Your task to perform on an android device: Open internet settings Image 0: 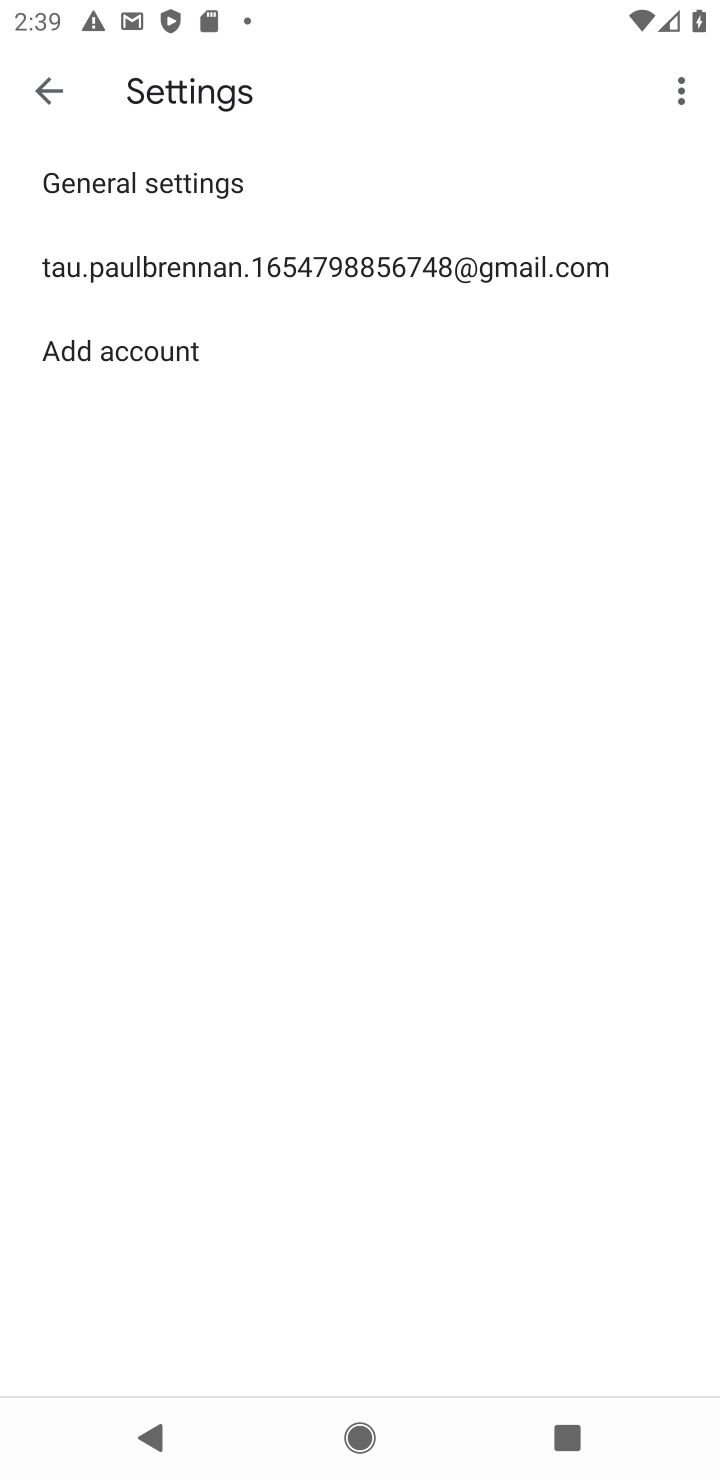
Step 0: press home button
Your task to perform on an android device: Open internet settings Image 1: 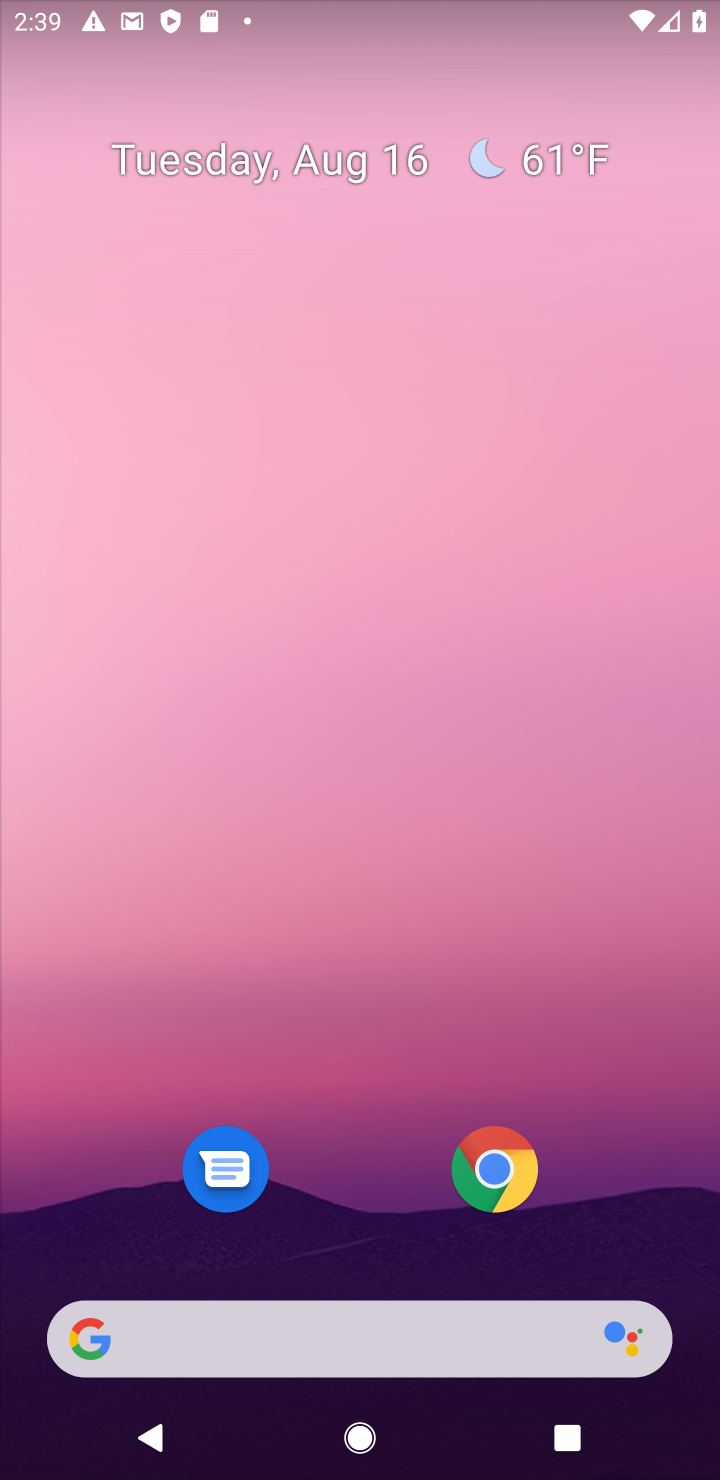
Step 1: drag from (417, 1168) to (633, 123)
Your task to perform on an android device: Open internet settings Image 2: 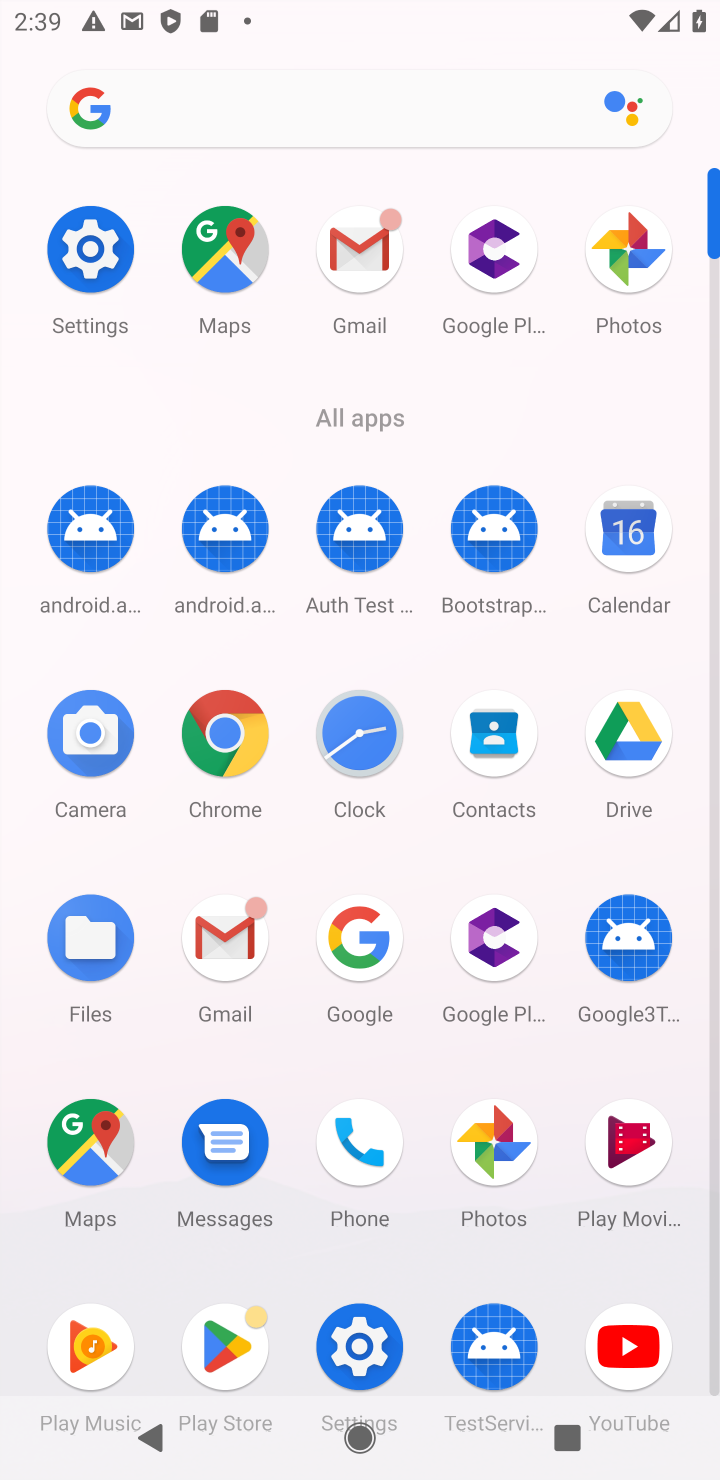
Step 2: drag from (93, 250) to (508, 890)
Your task to perform on an android device: Open internet settings Image 3: 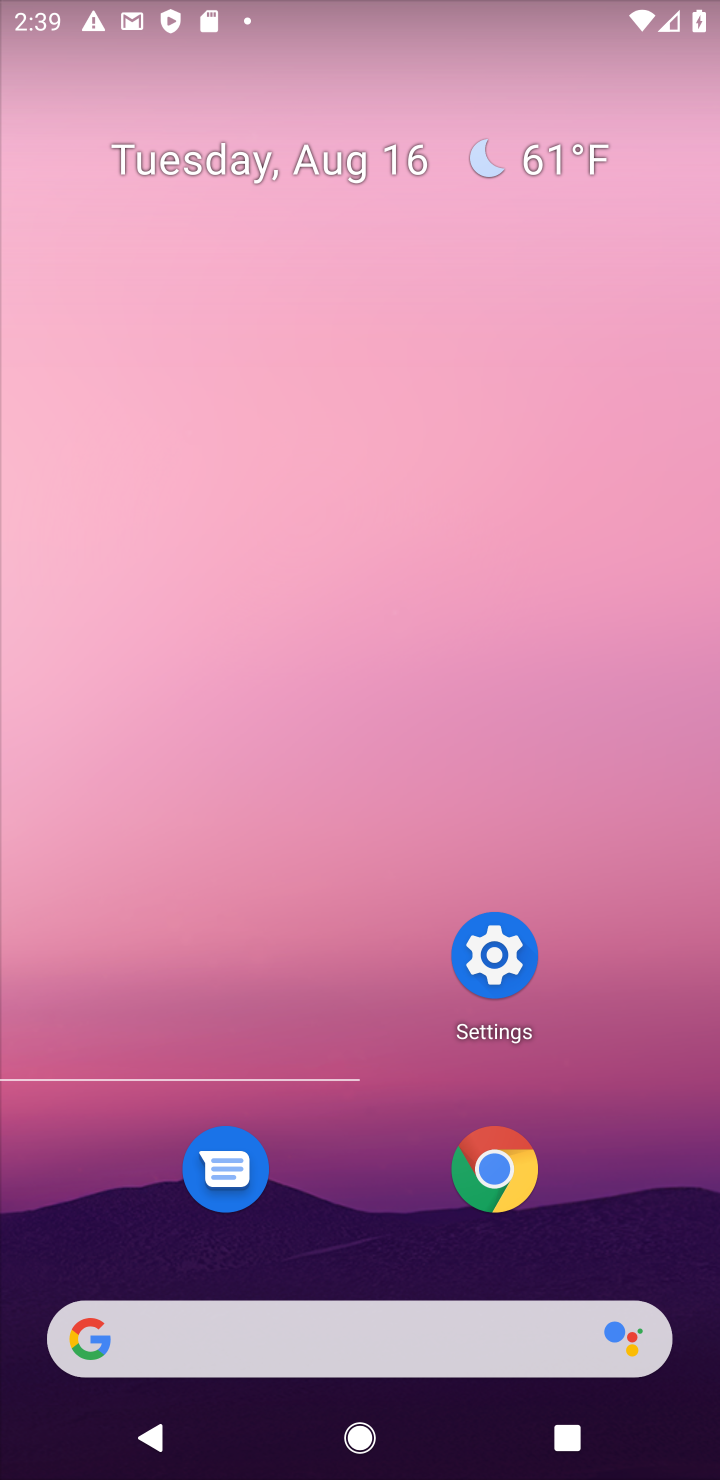
Step 3: click (486, 934)
Your task to perform on an android device: Open internet settings Image 4: 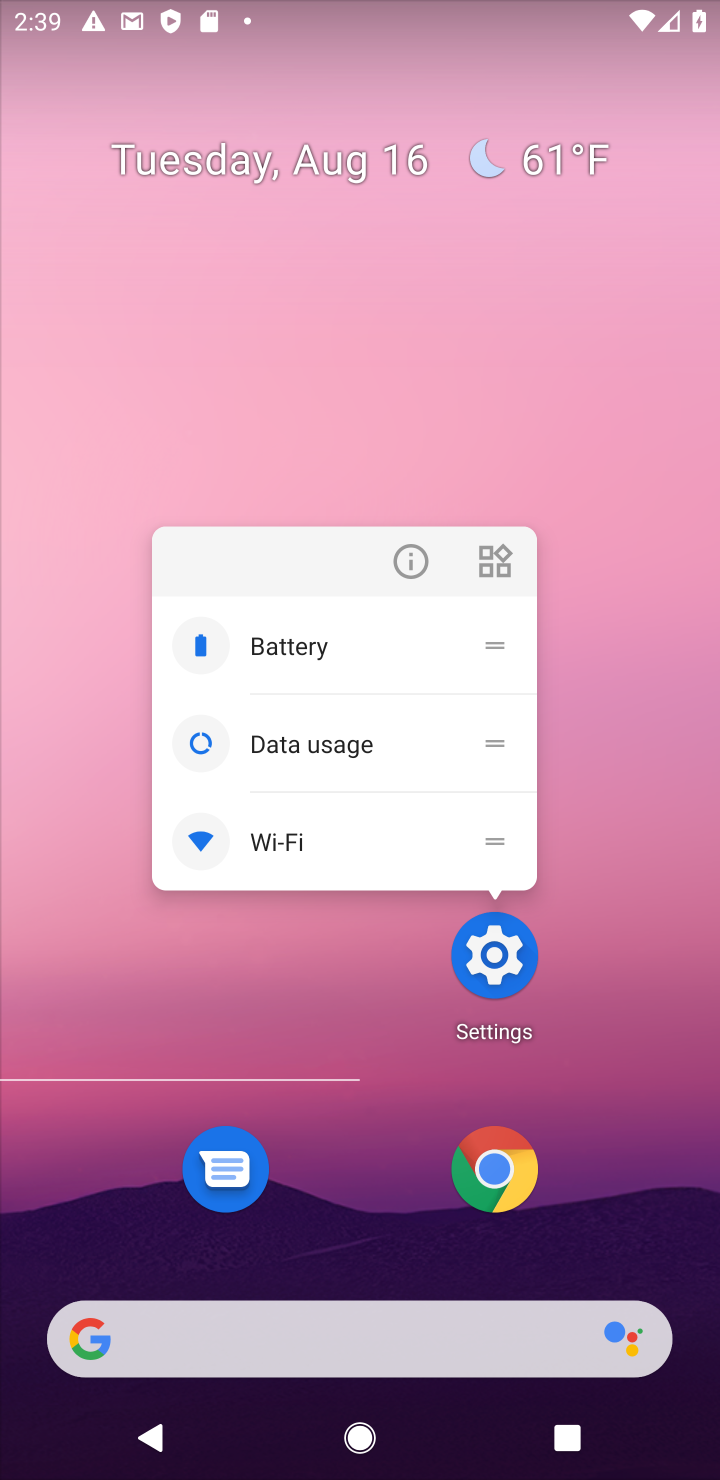
Step 4: click (494, 957)
Your task to perform on an android device: Open internet settings Image 5: 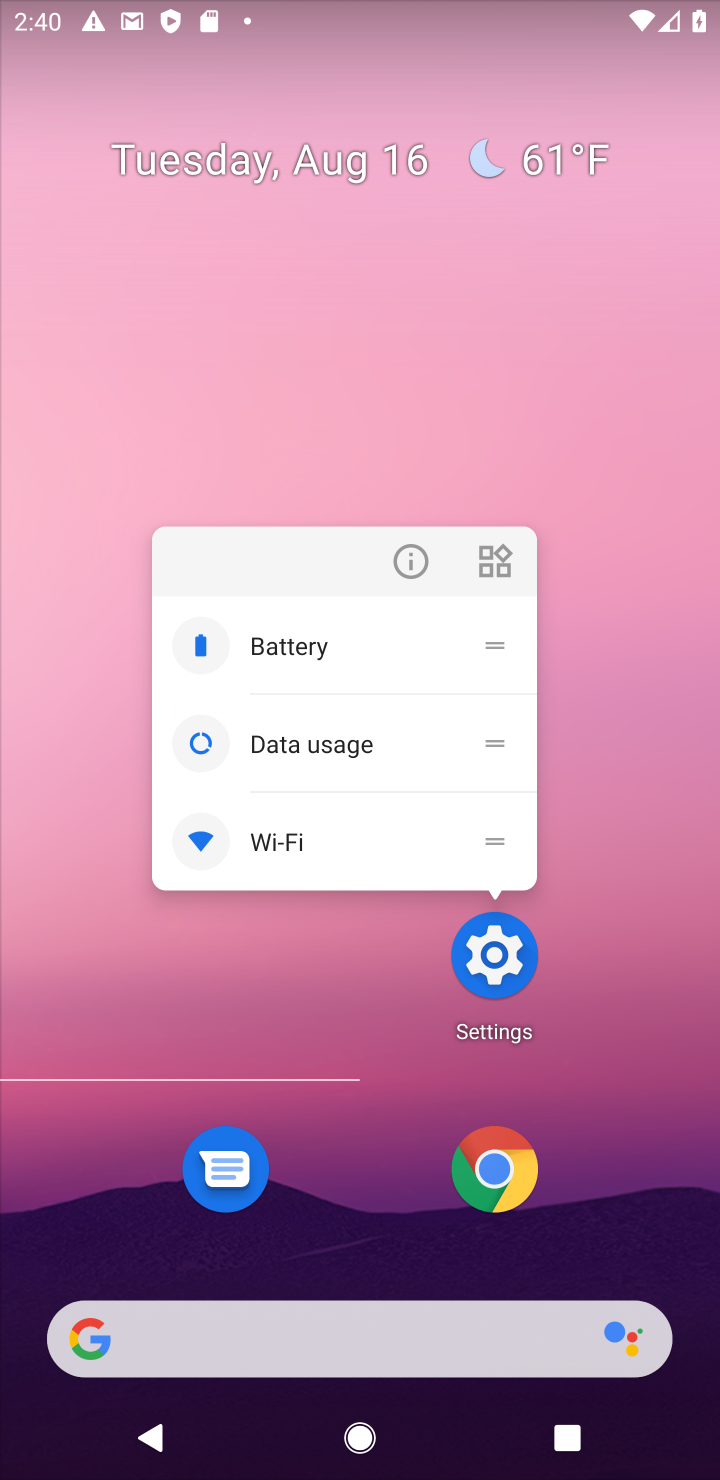
Step 5: click (507, 959)
Your task to perform on an android device: Open internet settings Image 6: 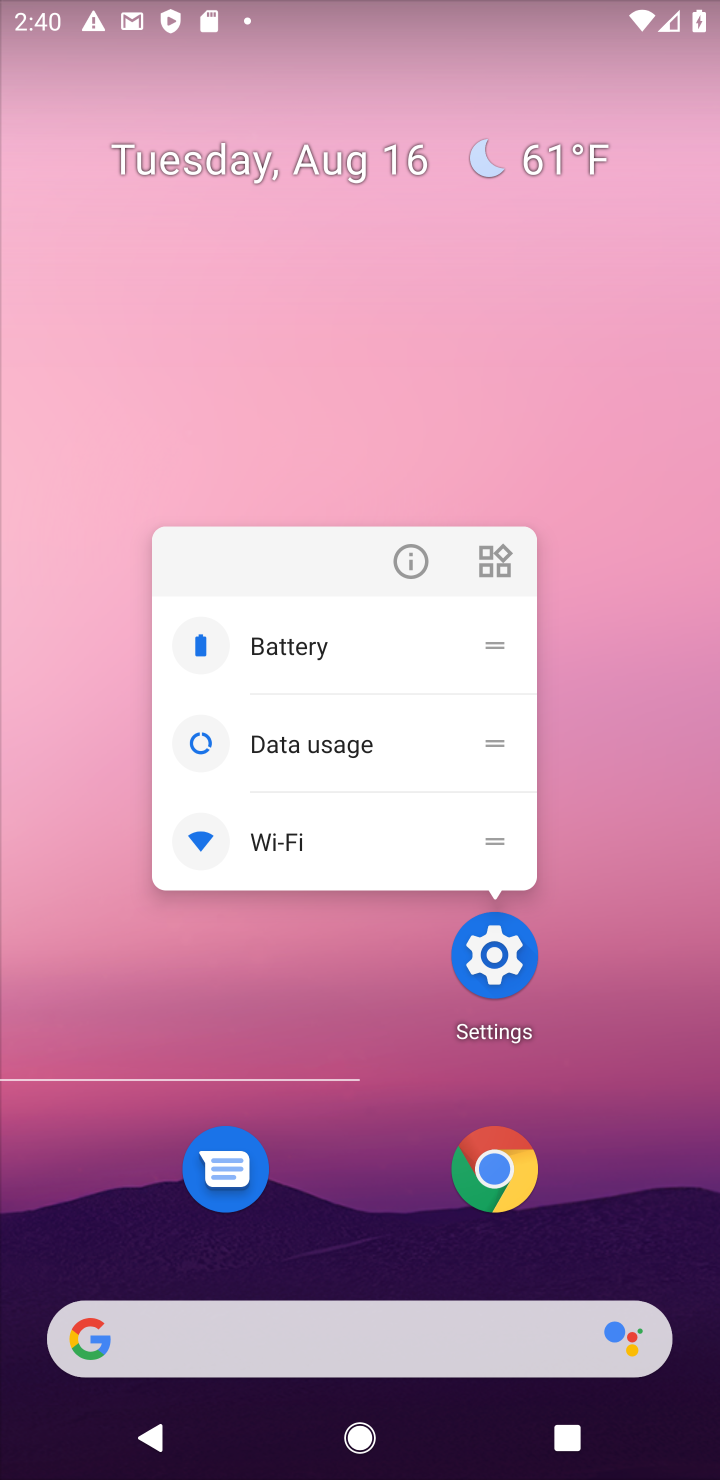
Step 6: click (508, 971)
Your task to perform on an android device: Open internet settings Image 7: 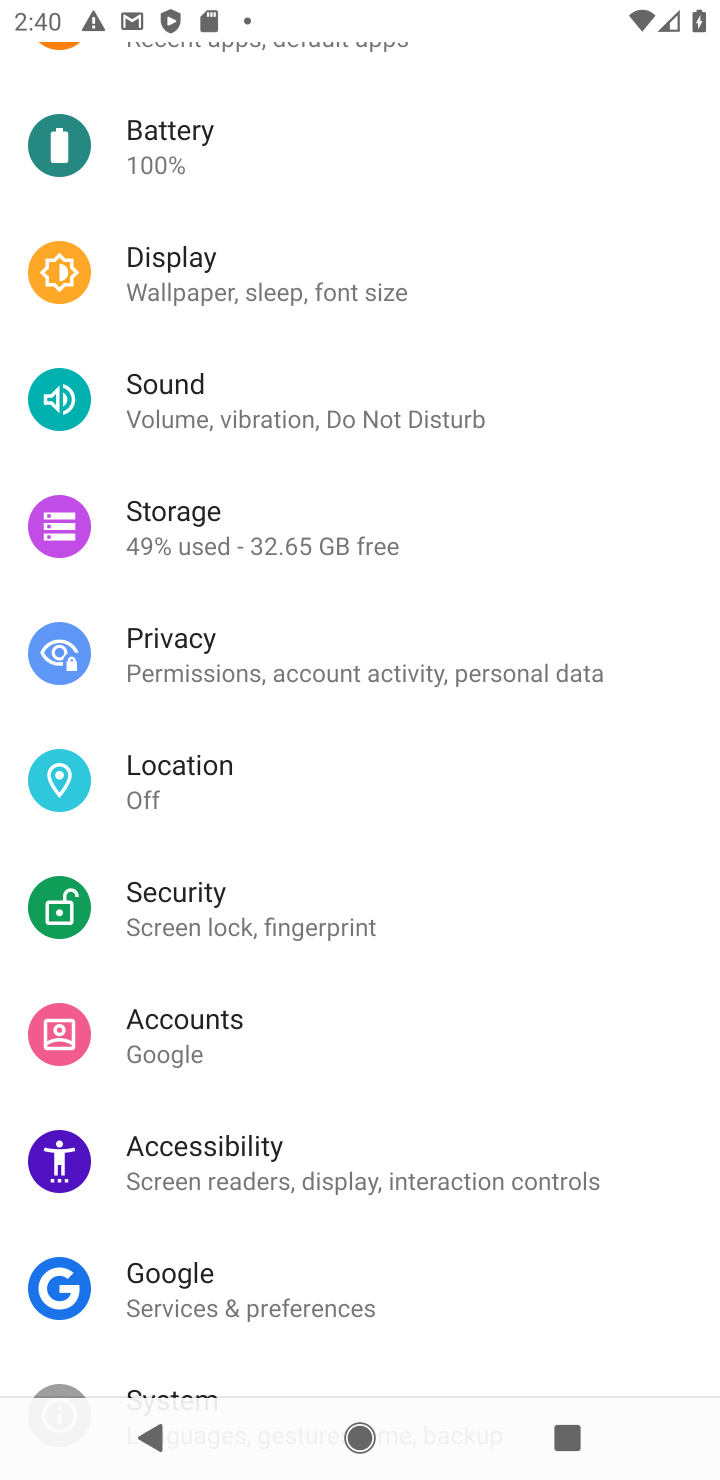
Step 7: drag from (417, 162) to (403, 1310)
Your task to perform on an android device: Open internet settings Image 8: 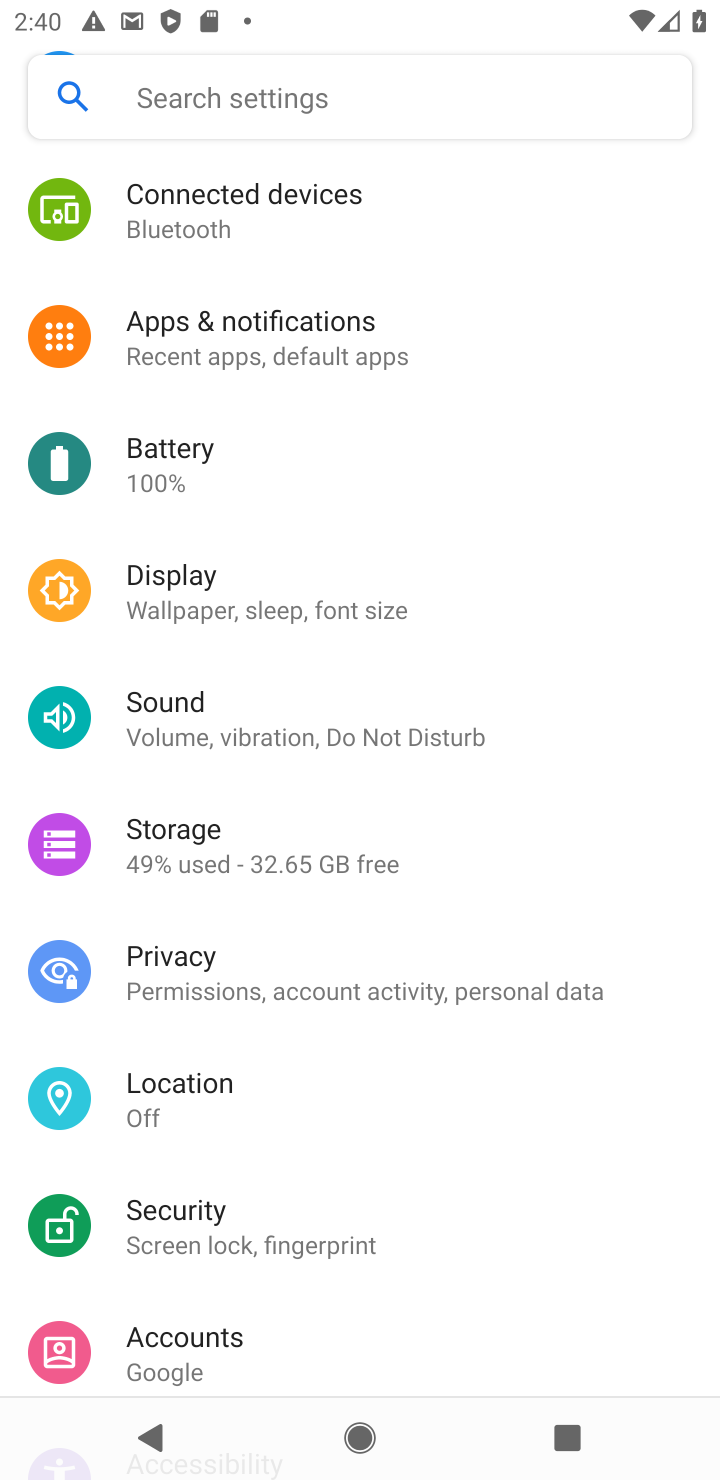
Step 8: drag from (535, 344) to (449, 1210)
Your task to perform on an android device: Open internet settings Image 9: 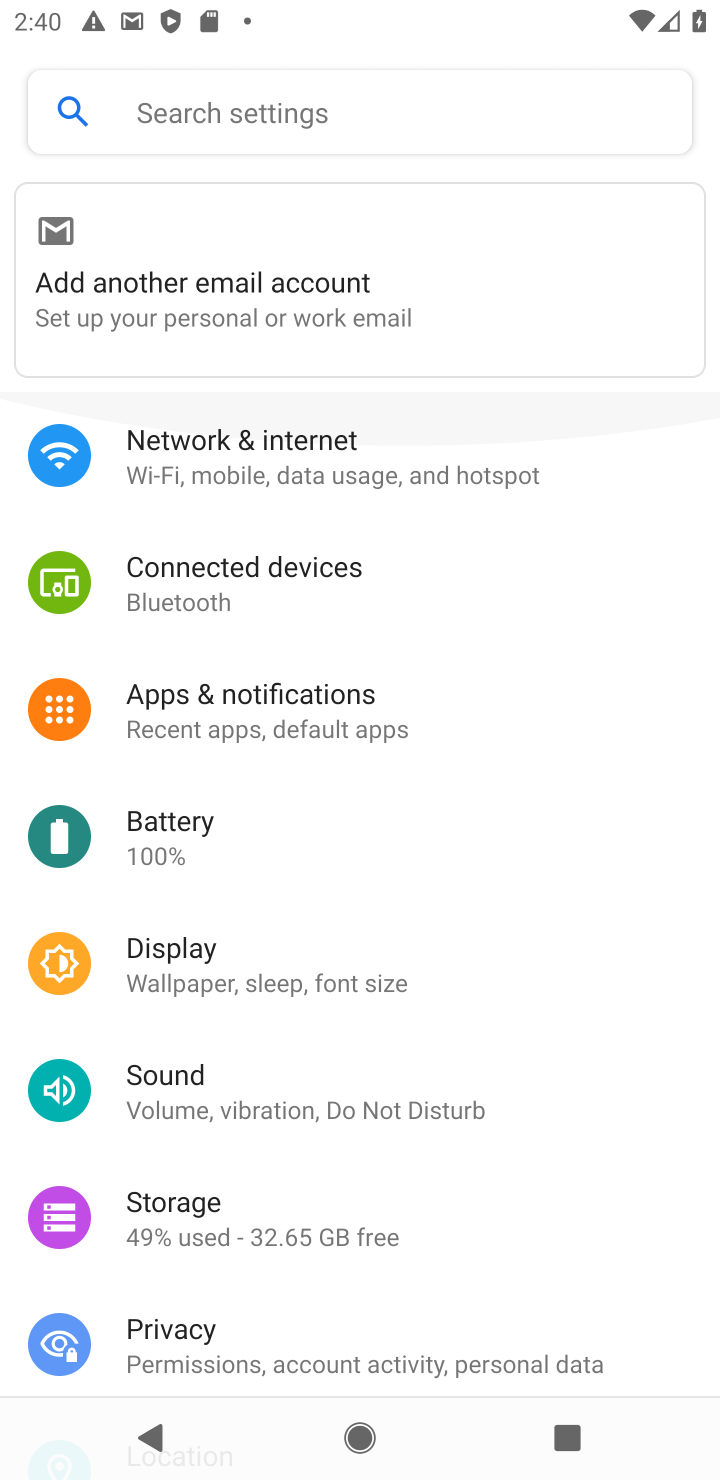
Step 9: click (267, 458)
Your task to perform on an android device: Open internet settings Image 10: 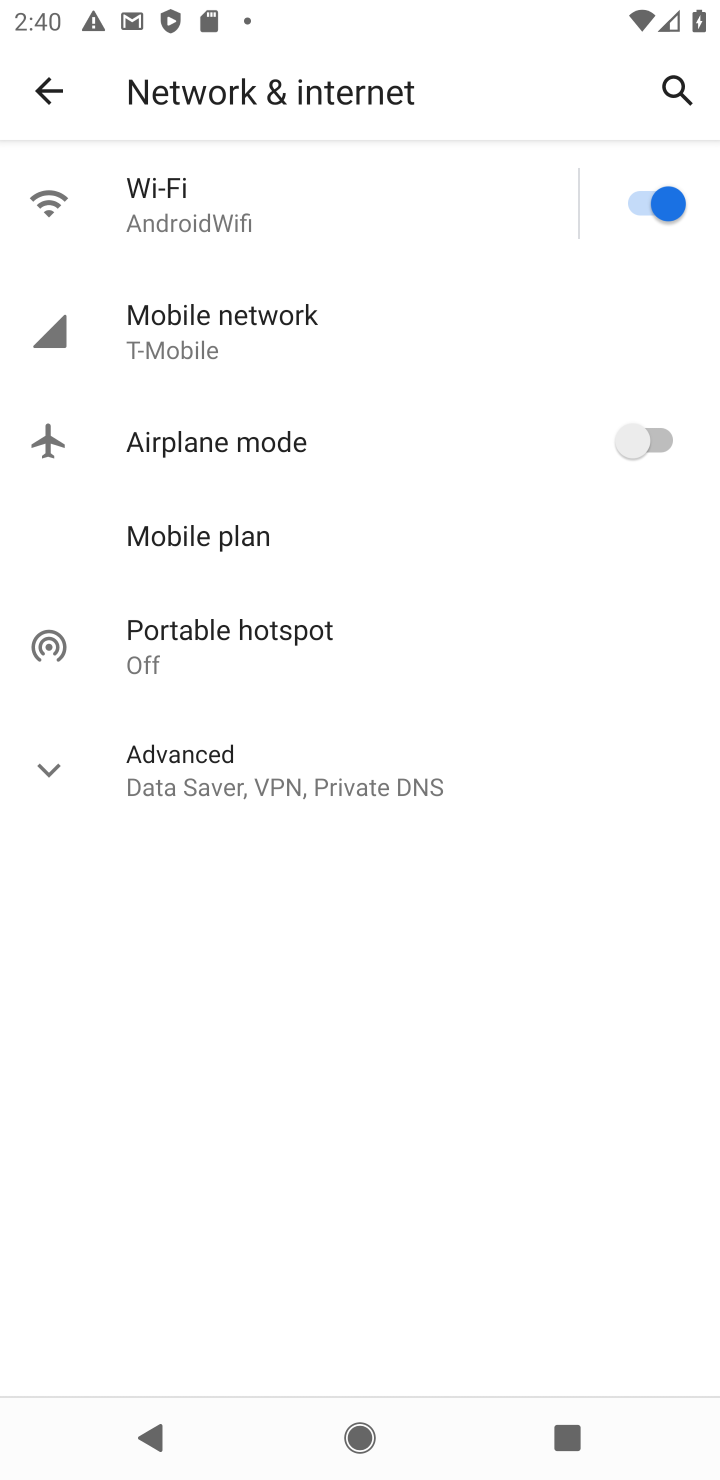
Step 10: task complete